Your task to perform on an android device: Open ESPN.com Image 0: 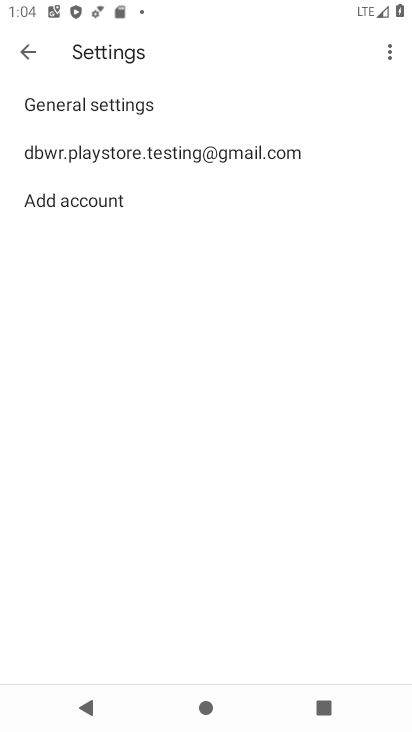
Step 0: press back button
Your task to perform on an android device: Open ESPN.com Image 1: 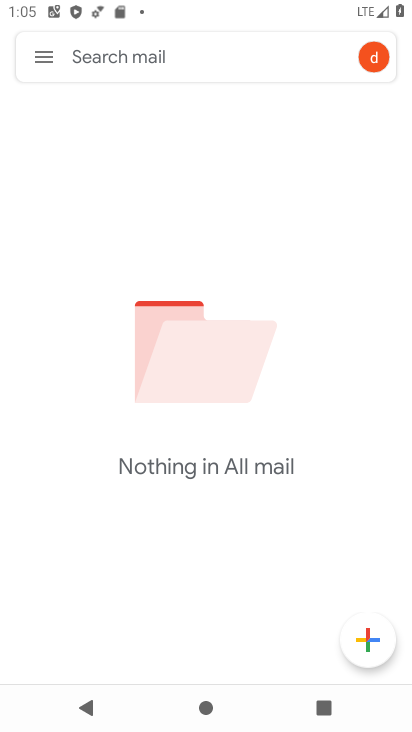
Step 1: press home button
Your task to perform on an android device: Open ESPN.com Image 2: 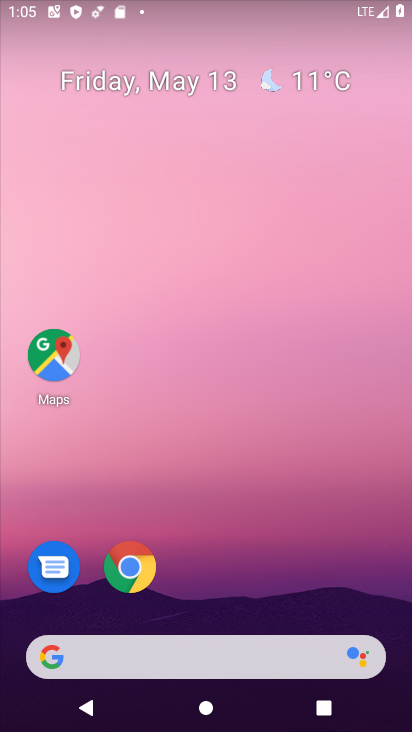
Step 2: click (156, 583)
Your task to perform on an android device: Open ESPN.com Image 3: 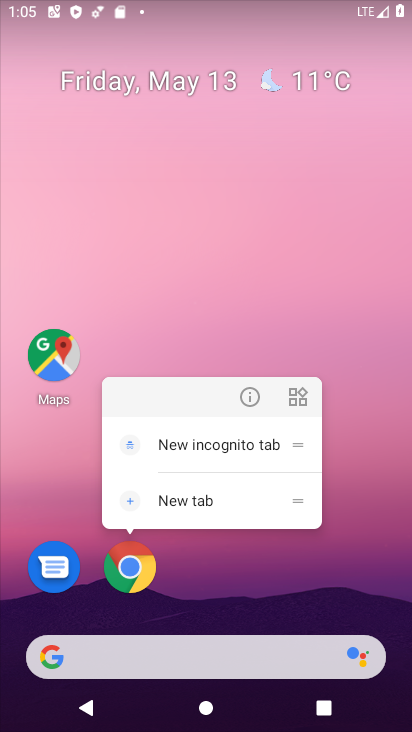
Step 3: click (154, 582)
Your task to perform on an android device: Open ESPN.com Image 4: 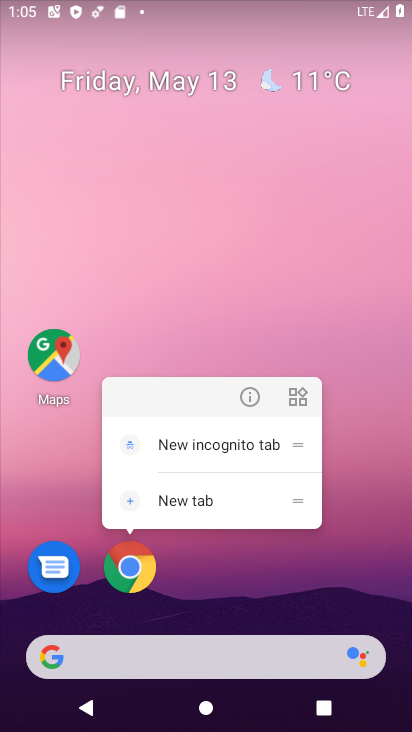
Step 4: click (148, 574)
Your task to perform on an android device: Open ESPN.com Image 5: 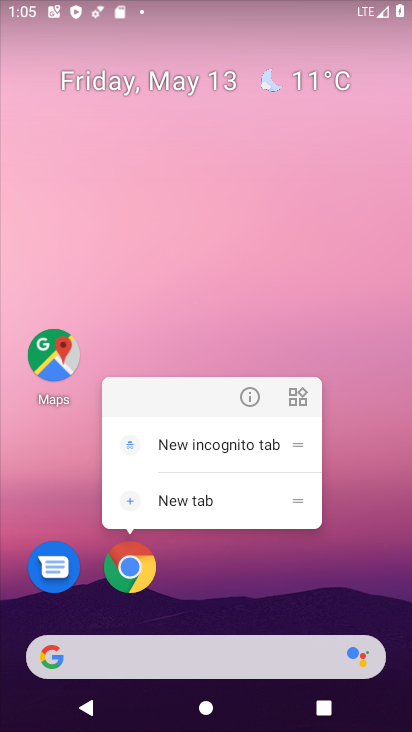
Step 5: click (142, 570)
Your task to perform on an android device: Open ESPN.com Image 6: 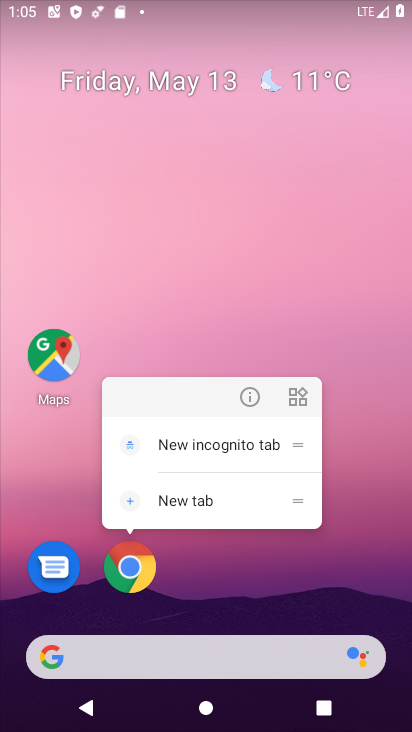
Step 6: click (142, 570)
Your task to perform on an android device: Open ESPN.com Image 7: 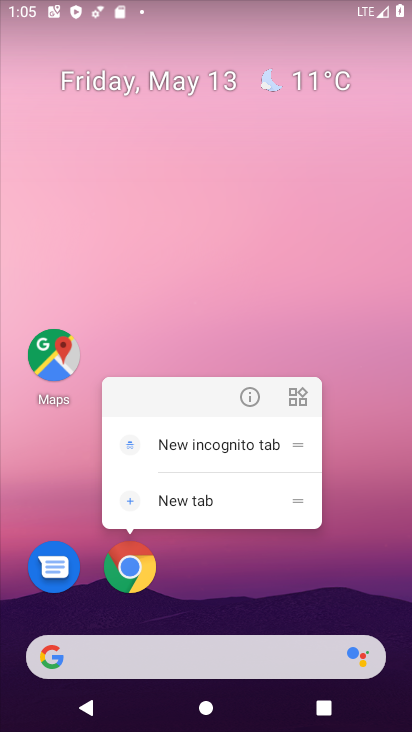
Step 7: click (134, 569)
Your task to perform on an android device: Open ESPN.com Image 8: 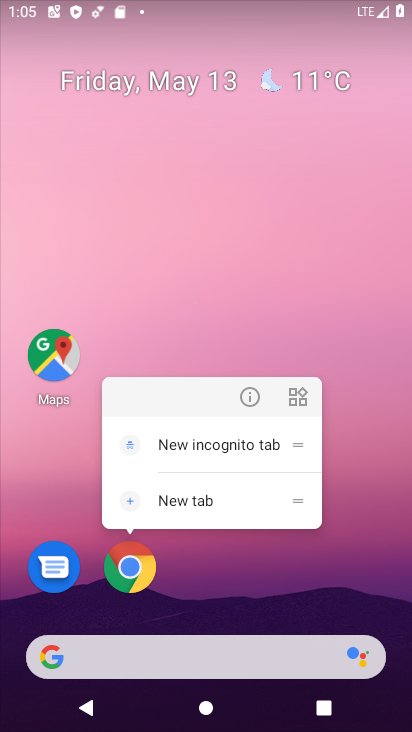
Step 8: click (133, 570)
Your task to perform on an android device: Open ESPN.com Image 9: 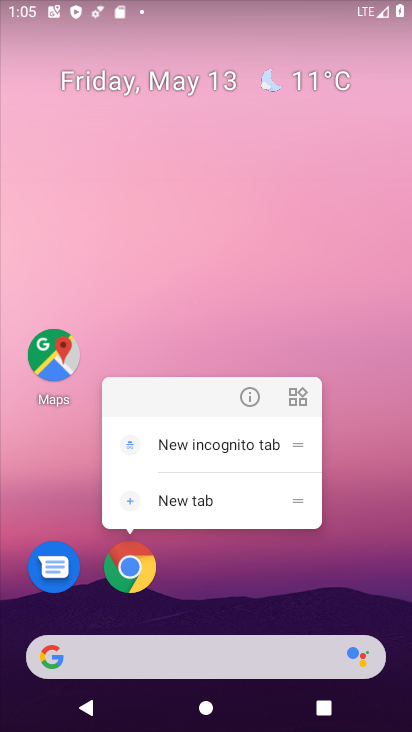
Step 9: click (128, 574)
Your task to perform on an android device: Open ESPN.com Image 10: 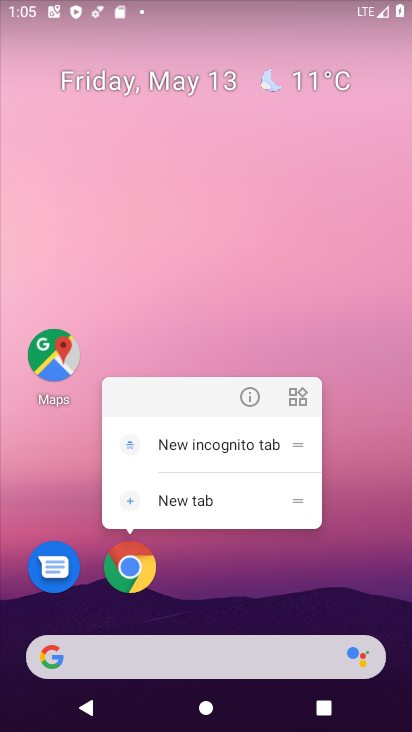
Step 10: click (134, 568)
Your task to perform on an android device: Open ESPN.com Image 11: 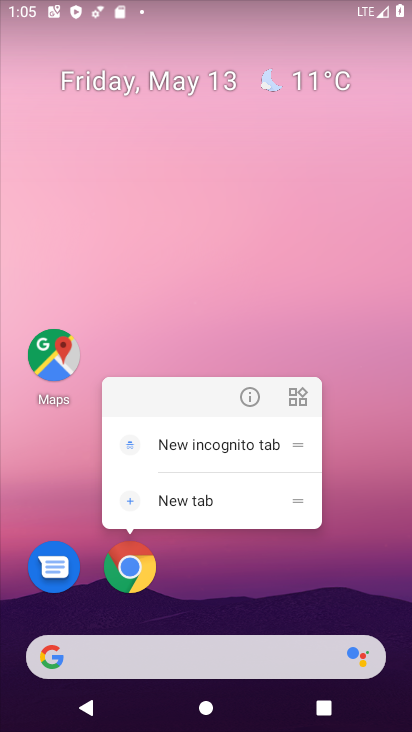
Step 11: click (132, 555)
Your task to perform on an android device: Open ESPN.com Image 12: 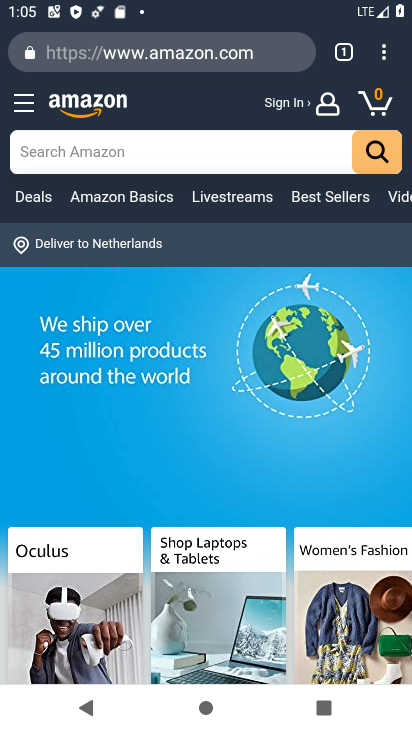
Step 12: drag from (382, 50) to (332, 124)
Your task to perform on an android device: Open ESPN.com Image 13: 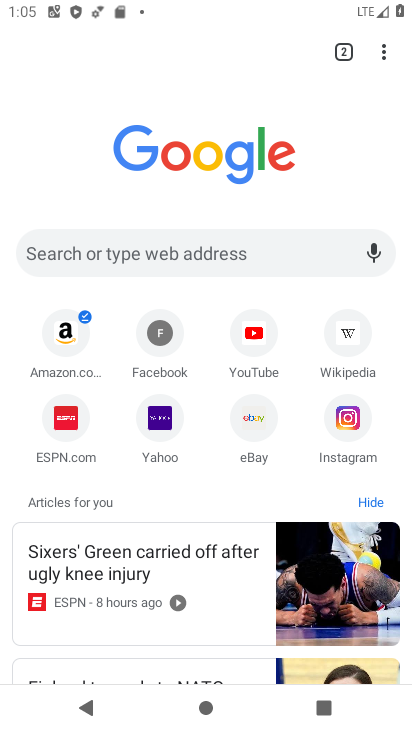
Step 13: click (78, 423)
Your task to perform on an android device: Open ESPN.com Image 14: 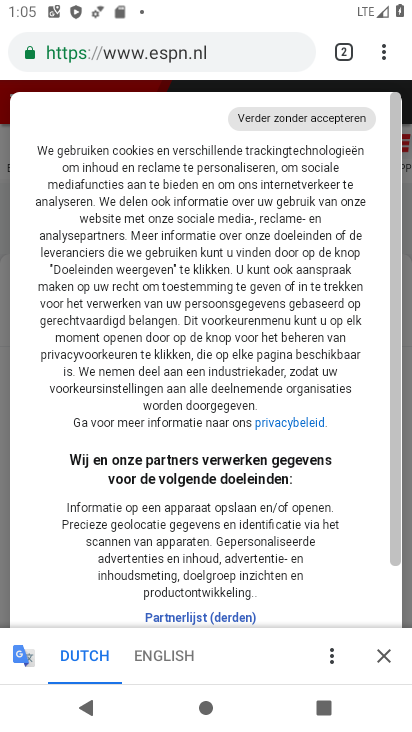
Step 14: click (189, 656)
Your task to perform on an android device: Open ESPN.com Image 15: 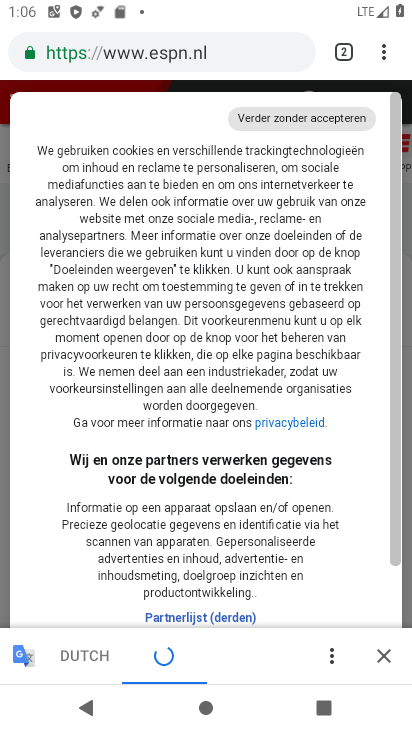
Step 15: drag from (190, 594) to (274, 243)
Your task to perform on an android device: Open ESPN.com Image 16: 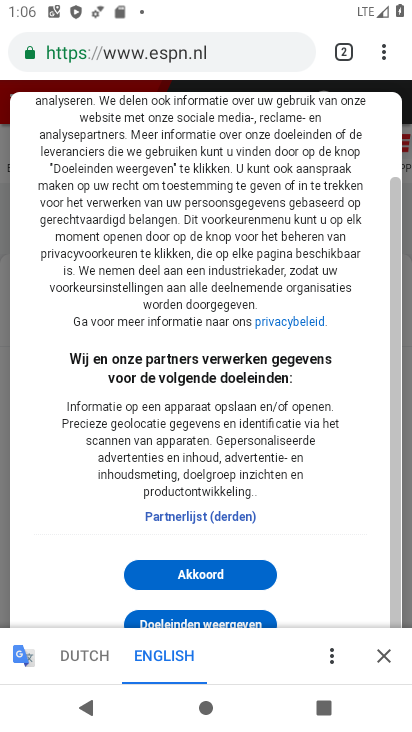
Step 16: click (253, 574)
Your task to perform on an android device: Open ESPN.com Image 17: 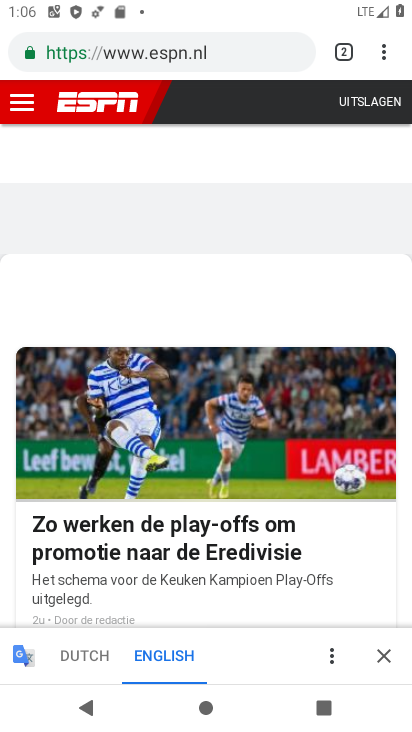
Step 17: task complete